Your task to perform on an android device: toggle wifi Image 0: 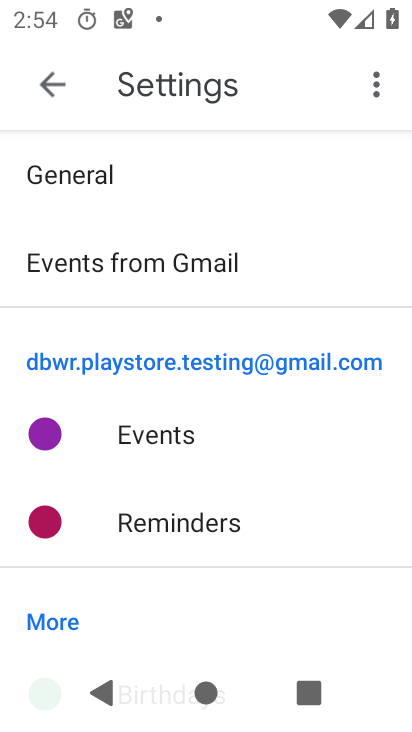
Step 0: press home button
Your task to perform on an android device: toggle wifi Image 1: 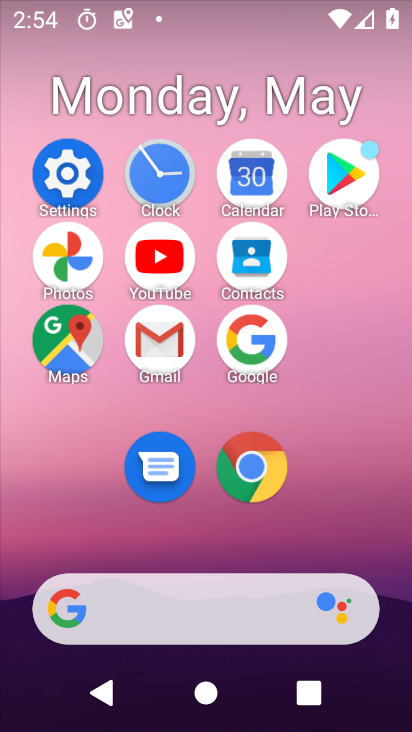
Step 1: click (50, 175)
Your task to perform on an android device: toggle wifi Image 2: 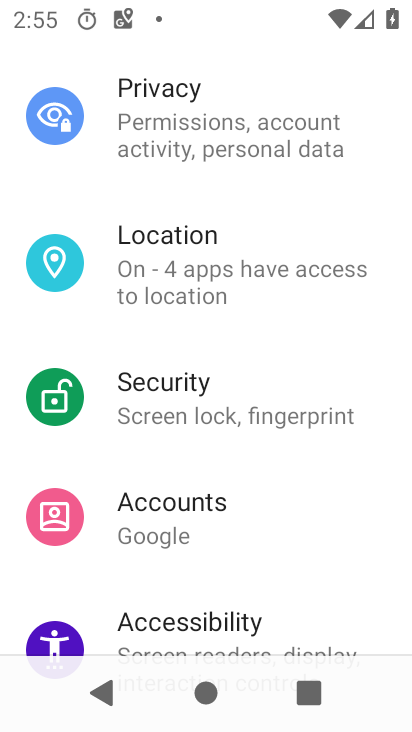
Step 2: drag from (274, 173) to (217, 617)
Your task to perform on an android device: toggle wifi Image 3: 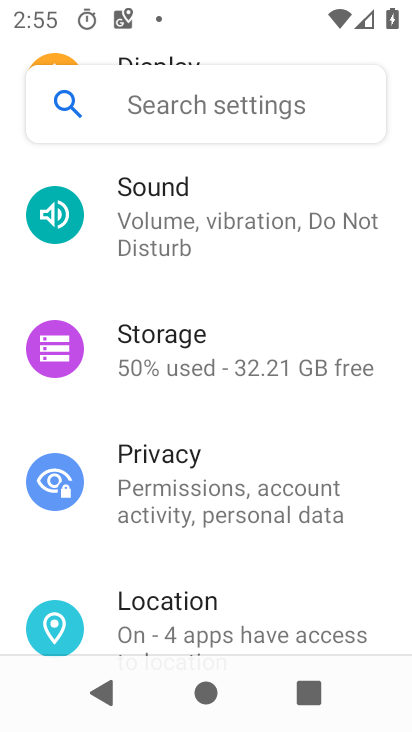
Step 3: drag from (338, 199) to (275, 619)
Your task to perform on an android device: toggle wifi Image 4: 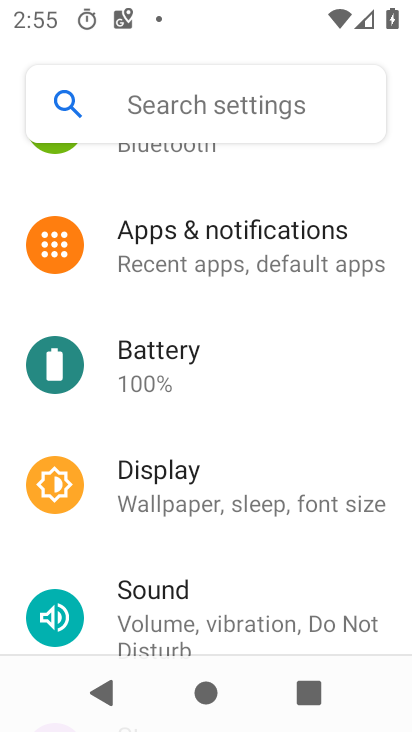
Step 4: drag from (316, 176) to (290, 633)
Your task to perform on an android device: toggle wifi Image 5: 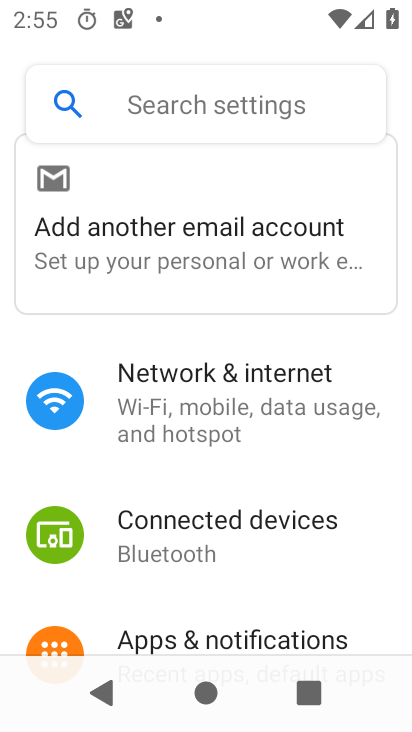
Step 5: click (259, 430)
Your task to perform on an android device: toggle wifi Image 6: 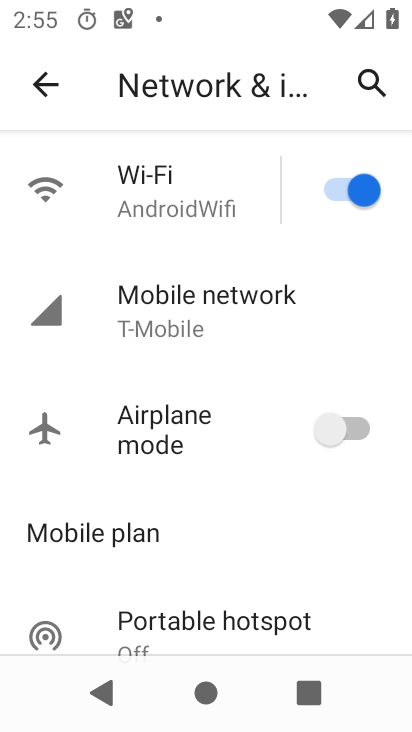
Step 6: click (348, 199)
Your task to perform on an android device: toggle wifi Image 7: 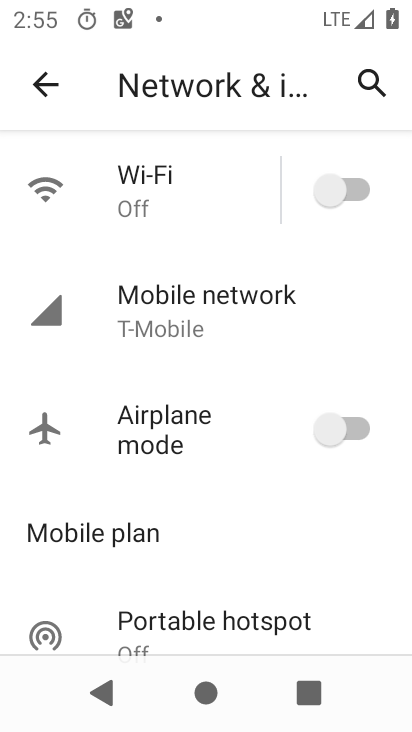
Step 7: task complete